Your task to perform on an android device: check google app version Image 0: 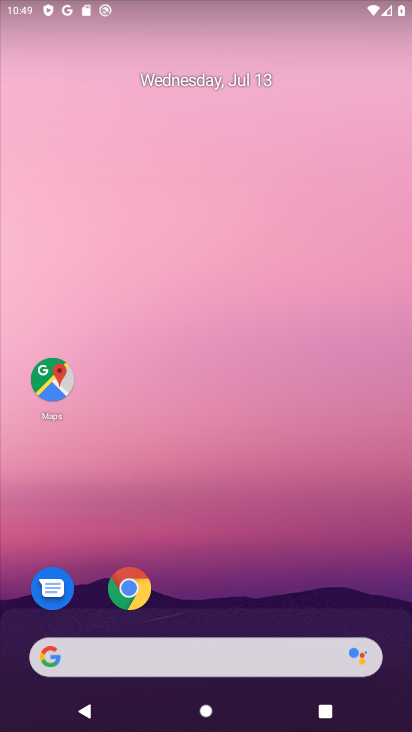
Step 0: drag from (228, 610) to (258, 57)
Your task to perform on an android device: check google app version Image 1: 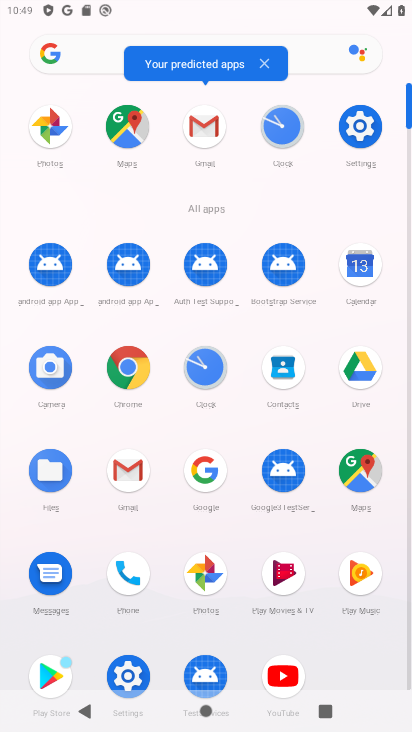
Step 1: click (120, 673)
Your task to perform on an android device: check google app version Image 2: 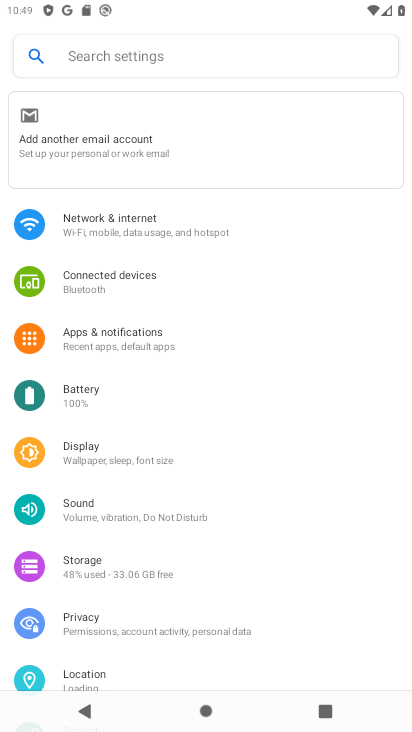
Step 2: click (141, 349)
Your task to perform on an android device: check google app version Image 3: 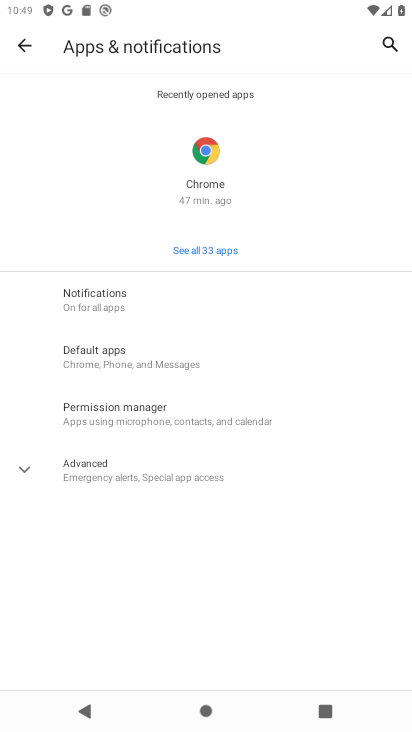
Step 3: click (207, 246)
Your task to perform on an android device: check google app version Image 4: 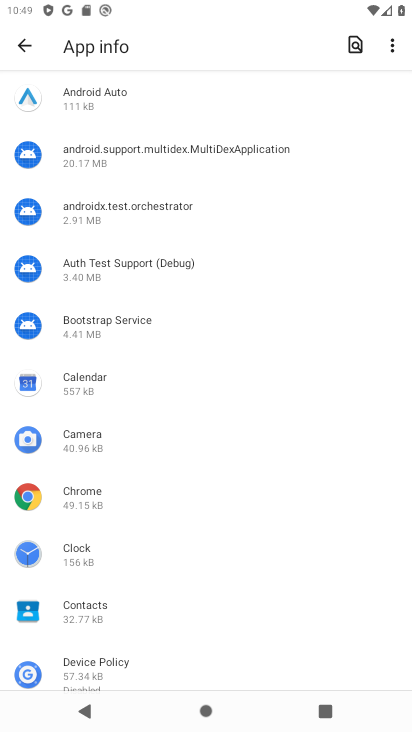
Step 4: drag from (122, 628) to (193, 180)
Your task to perform on an android device: check google app version Image 5: 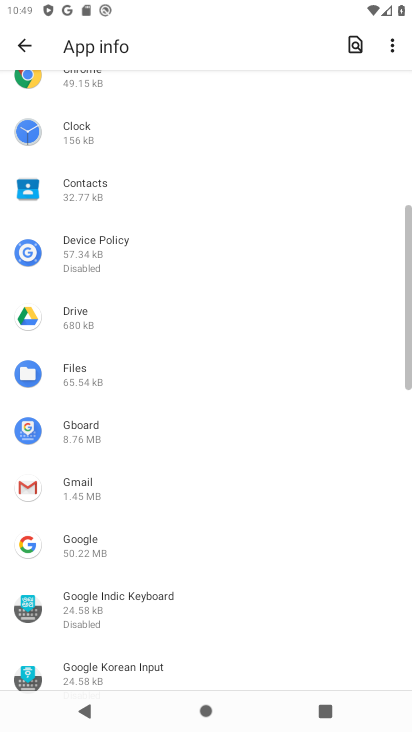
Step 5: click (108, 549)
Your task to perform on an android device: check google app version Image 6: 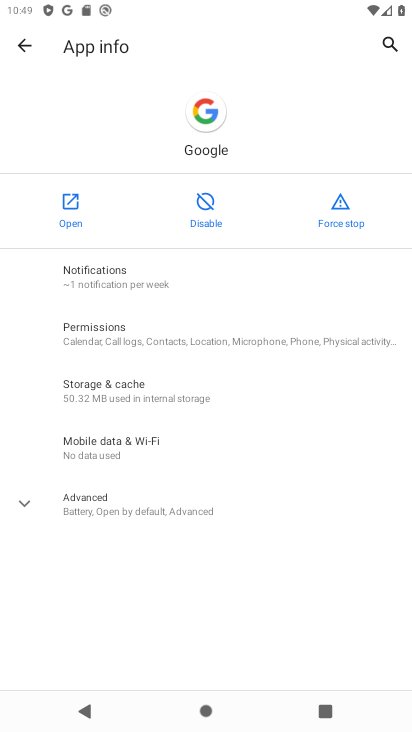
Step 6: click (190, 502)
Your task to perform on an android device: check google app version Image 7: 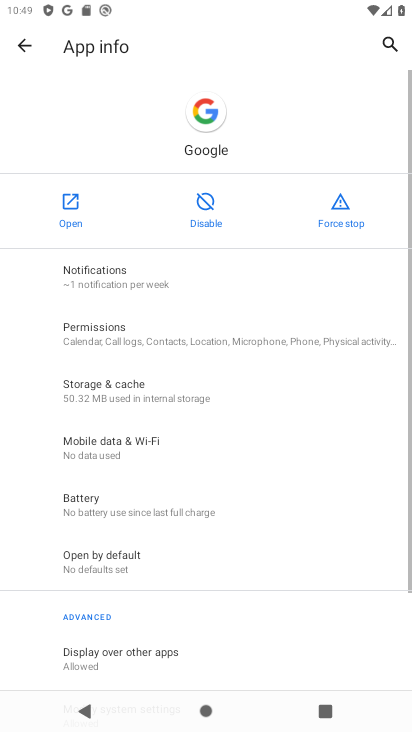
Step 7: task complete